Your task to perform on an android device: turn on bluetooth scan Image 0: 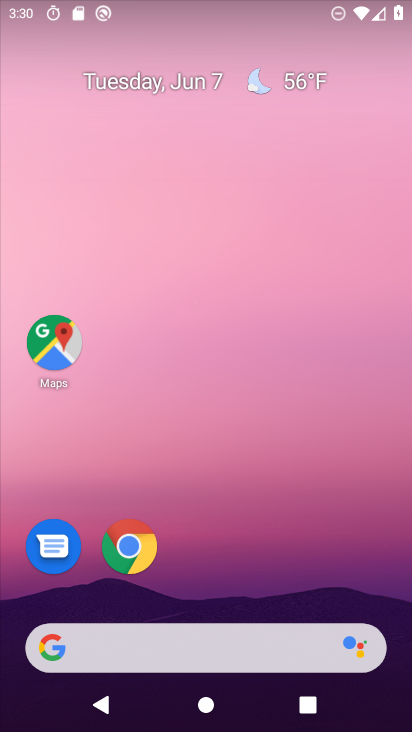
Step 0: drag from (221, 575) to (197, 32)
Your task to perform on an android device: turn on bluetooth scan Image 1: 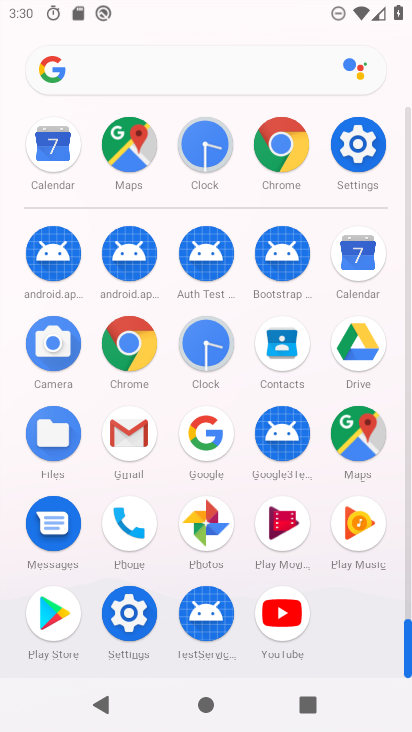
Step 1: drag from (7, 536) to (28, 200)
Your task to perform on an android device: turn on bluetooth scan Image 2: 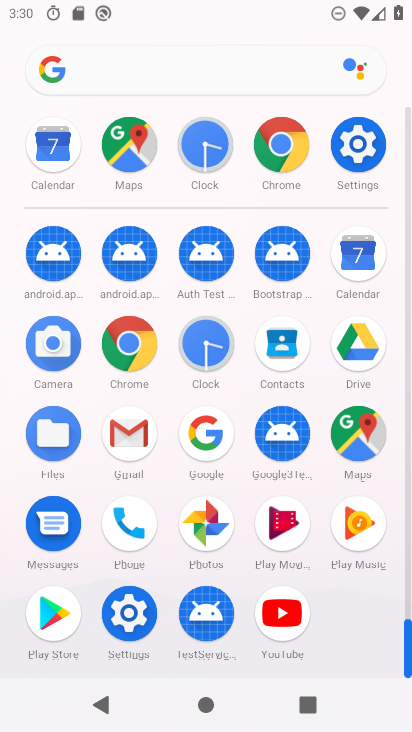
Step 2: click (130, 610)
Your task to perform on an android device: turn on bluetooth scan Image 3: 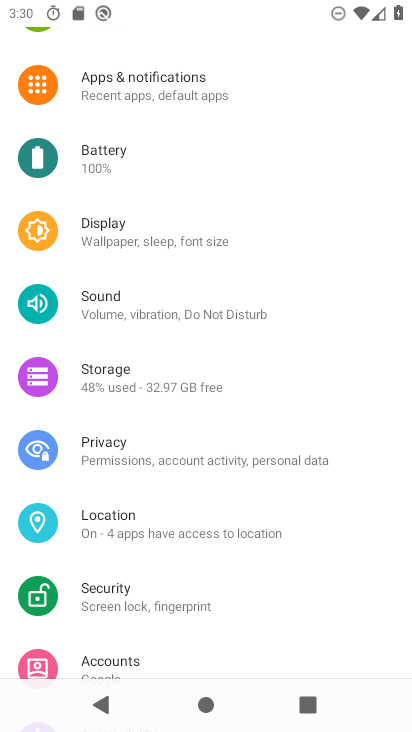
Step 3: drag from (215, 103) to (200, 546)
Your task to perform on an android device: turn on bluetooth scan Image 4: 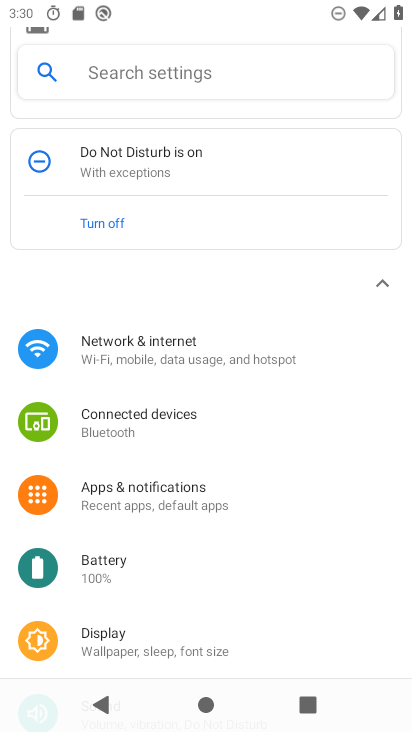
Step 4: drag from (251, 562) to (281, 227)
Your task to perform on an android device: turn on bluetooth scan Image 5: 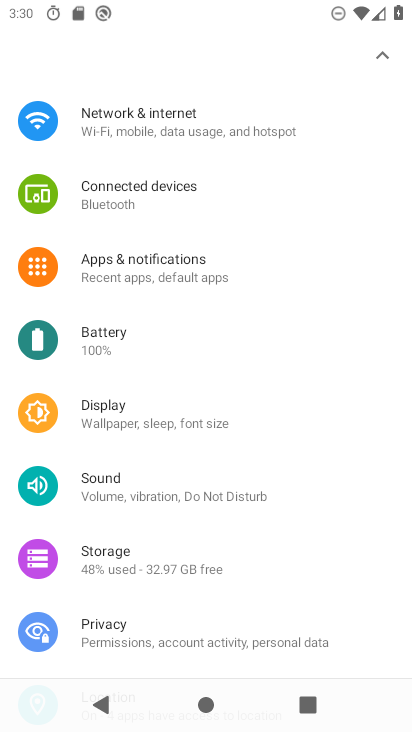
Step 5: drag from (282, 568) to (286, 185)
Your task to perform on an android device: turn on bluetooth scan Image 6: 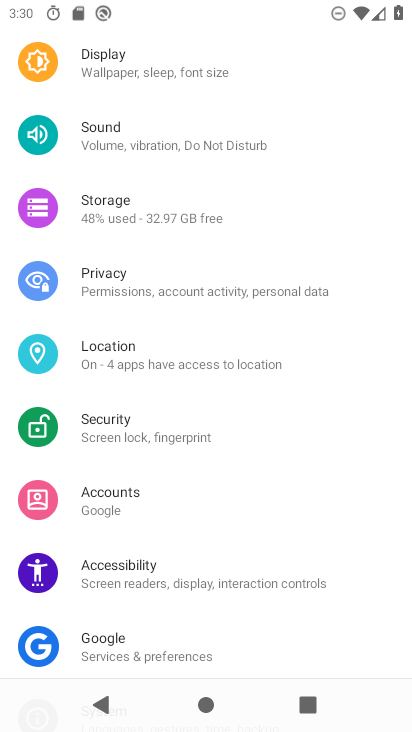
Step 6: drag from (247, 532) to (246, 160)
Your task to perform on an android device: turn on bluetooth scan Image 7: 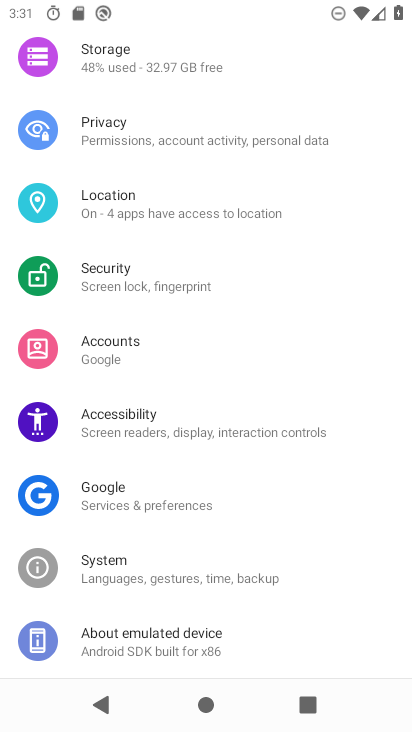
Step 7: drag from (263, 531) to (263, 295)
Your task to perform on an android device: turn on bluetooth scan Image 8: 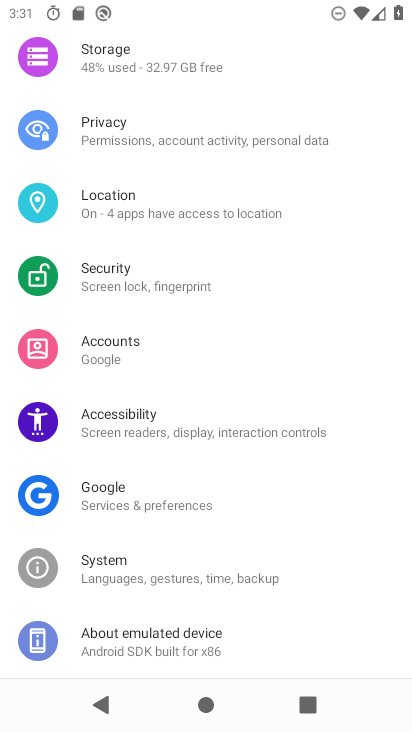
Step 8: drag from (245, 204) to (235, 661)
Your task to perform on an android device: turn on bluetooth scan Image 9: 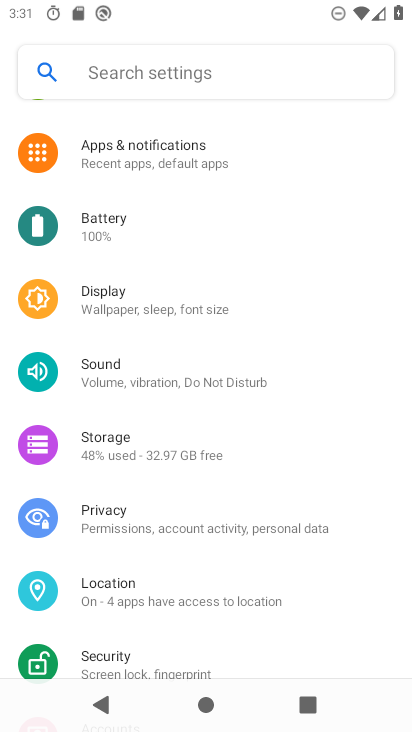
Step 9: drag from (236, 241) to (249, 607)
Your task to perform on an android device: turn on bluetooth scan Image 10: 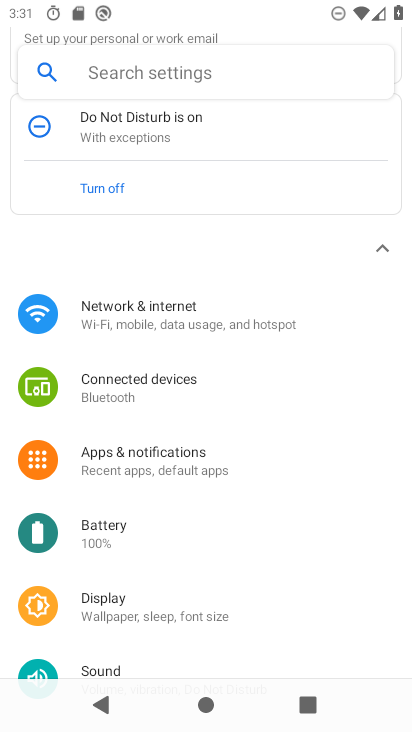
Step 10: drag from (234, 561) to (244, 292)
Your task to perform on an android device: turn on bluetooth scan Image 11: 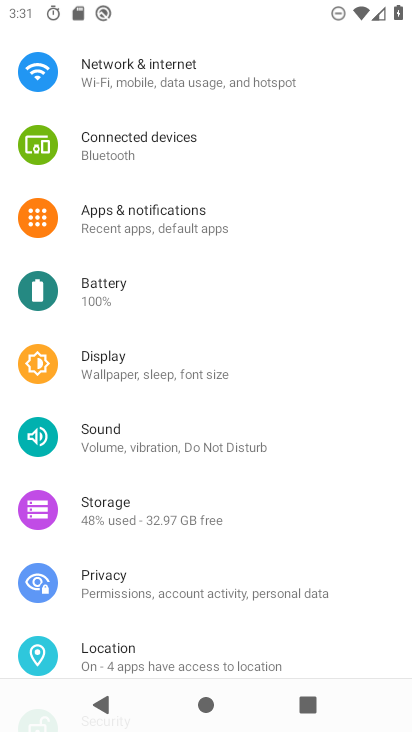
Step 11: drag from (279, 599) to (302, 314)
Your task to perform on an android device: turn on bluetooth scan Image 12: 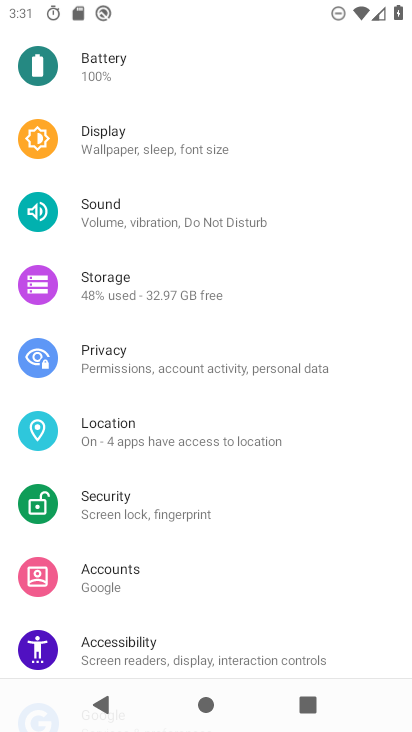
Step 12: drag from (256, 593) to (279, 227)
Your task to perform on an android device: turn on bluetooth scan Image 13: 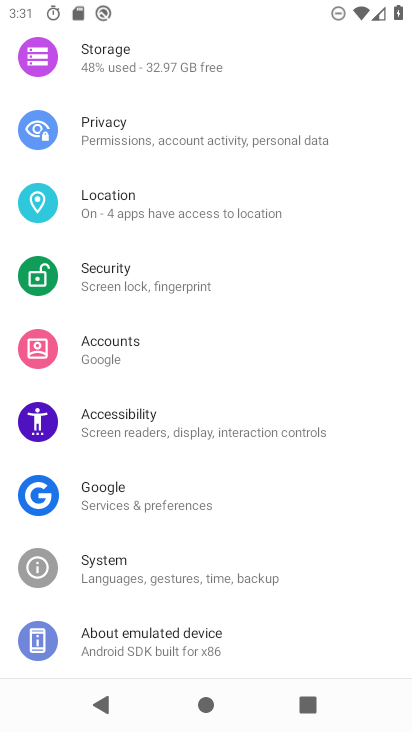
Step 13: click (174, 208)
Your task to perform on an android device: turn on bluetooth scan Image 14: 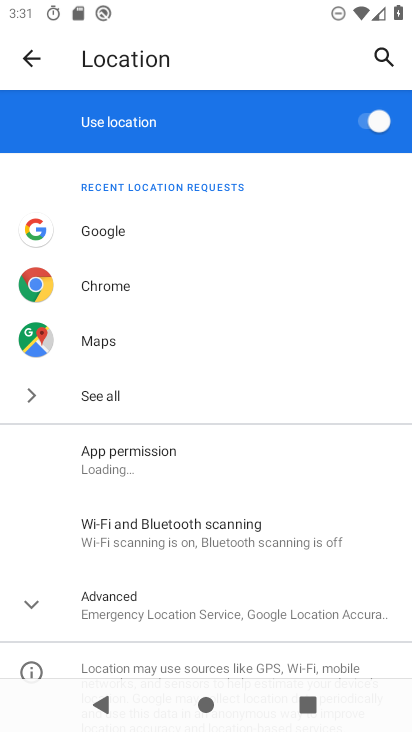
Step 14: click (211, 538)
Your task to perform on an android device: turn on bluetooth scan Image 15: 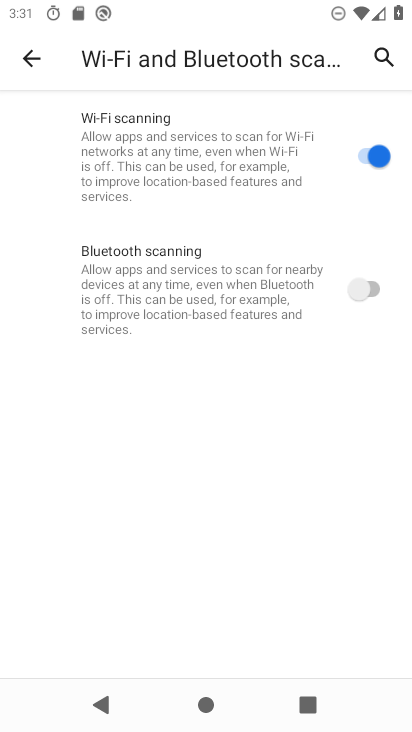
Step 15: click (366, 289)
Your task to perform on an android device: turn on bluetooth scan Image 16: 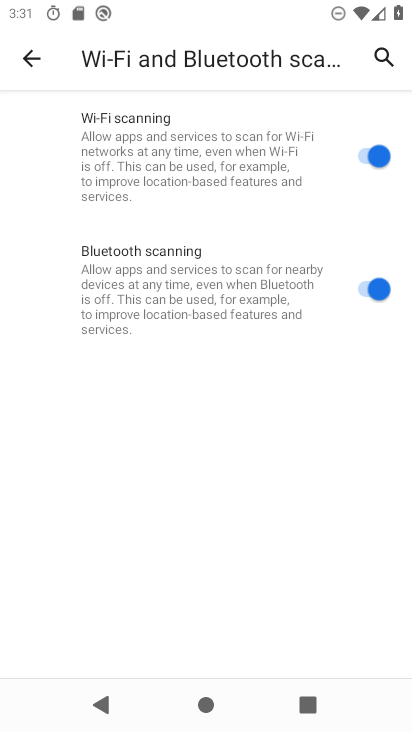
Step 16: task complete